Your task to perform on an android device: turn on improve location accuracy Image 0: 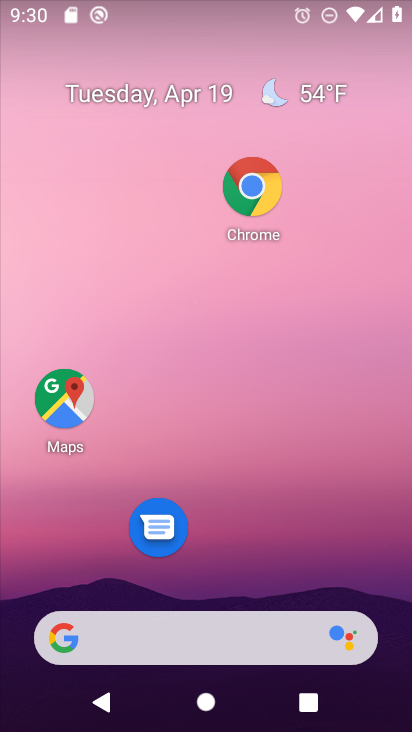
Step 0: drag from (235, 406) to (229, 103)
Your task to perform on an android device: turn on improve location accuracy Image 1: 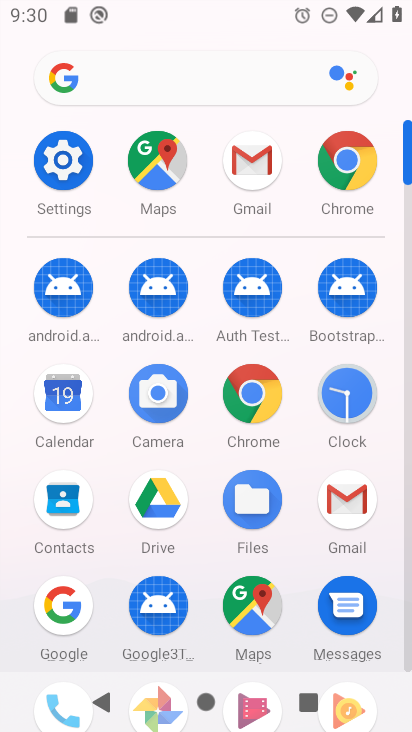
Step 1: drag from (297, 544) to (280, 629)
Your task to perform on an android device: turn on improve location accuracy Image 2: 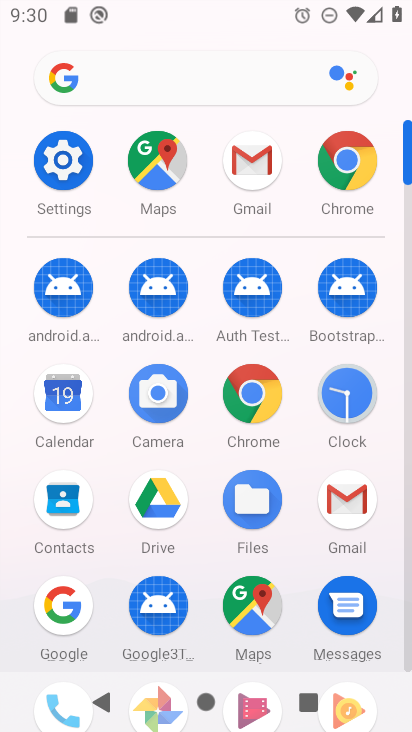
Step 2: click (69, 148)
Your task to perform on an android device: turn on improve location accuracy Image 3: 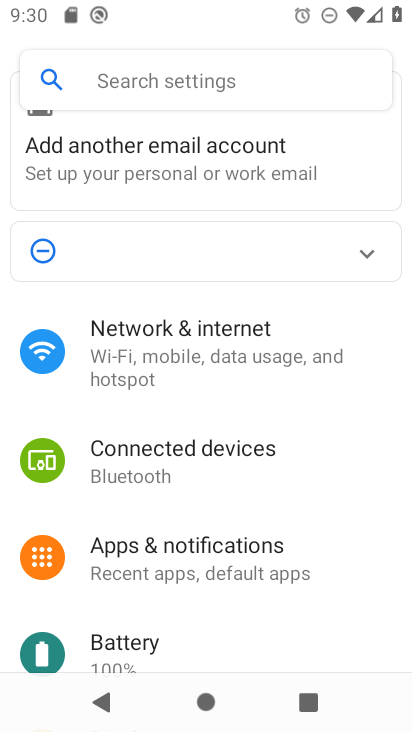
Step 3: drag from (229, 574) to (292, 265)
Your task to perform on an android device: turn on improve location accuracy Image 4: 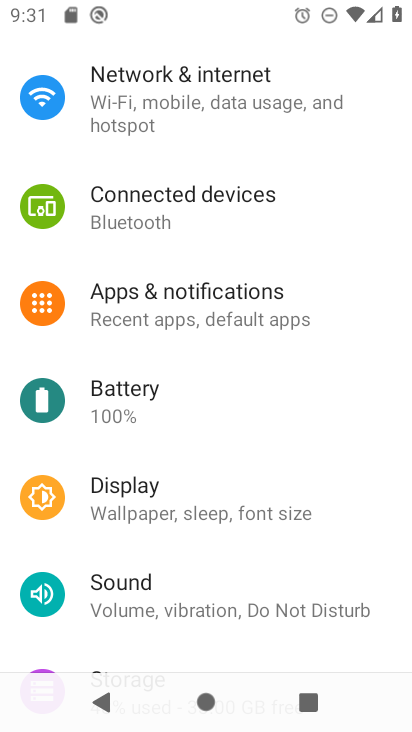
Step 4: drag from (209, 579) to (284, 176)
Your task to perform on an android device: turn on improve location accuracy Image 5: 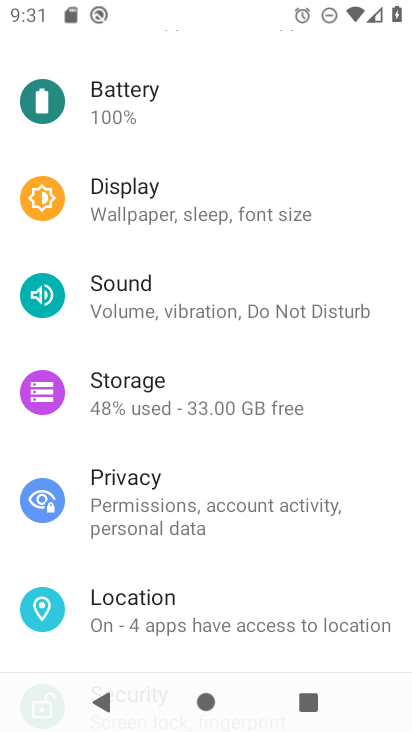
Step 5: drag from (182, 507) to (214, 317)
Your task to perform on an android device: turn on improve location accuracy Image 6: 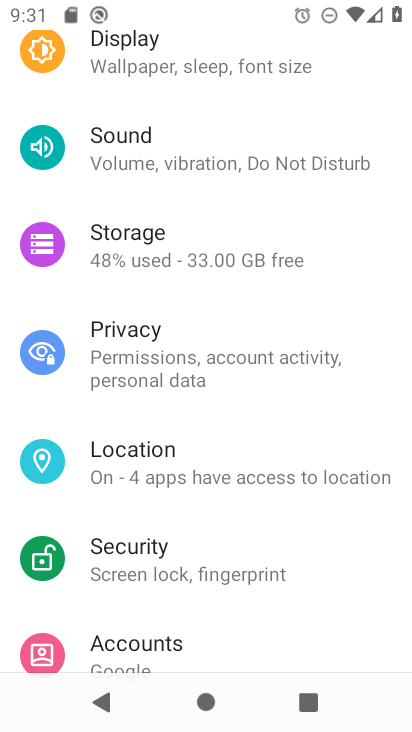
Step 6: click (145, 464)
Your task to perform on an android device: turn on improve location accuracy Image 7: 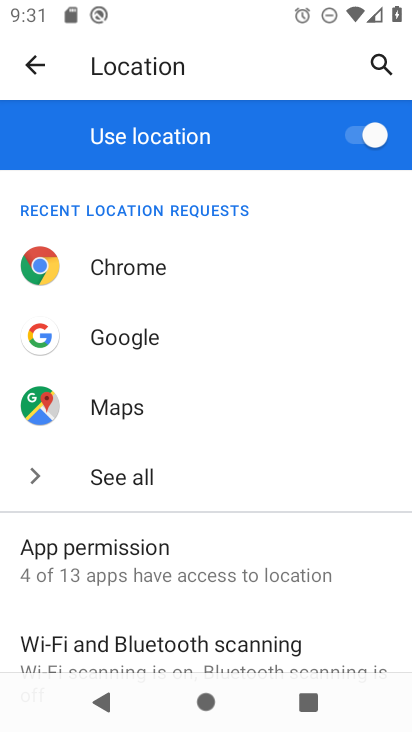
Step 7: drag from (222, 585) to (304, 250)
Your task to perform on an android device: turn on improve location accuracy Image 8: 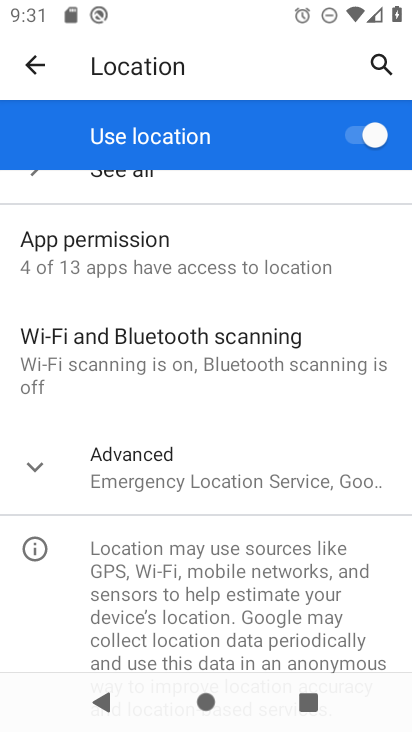
Step 8: click (189, 483)
Your task to perform on an android device: turn on improve location accuracy Image 9: 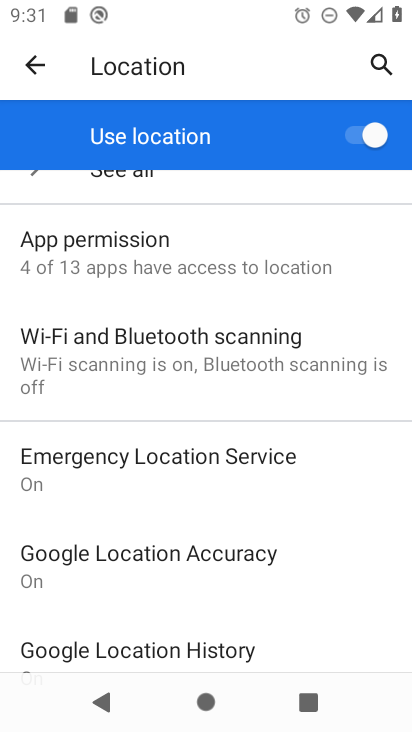
Step 9: drag from (261, 567) to (293, 403)
Your task to perform on an android device: turn on improve location accuracy Image 10: 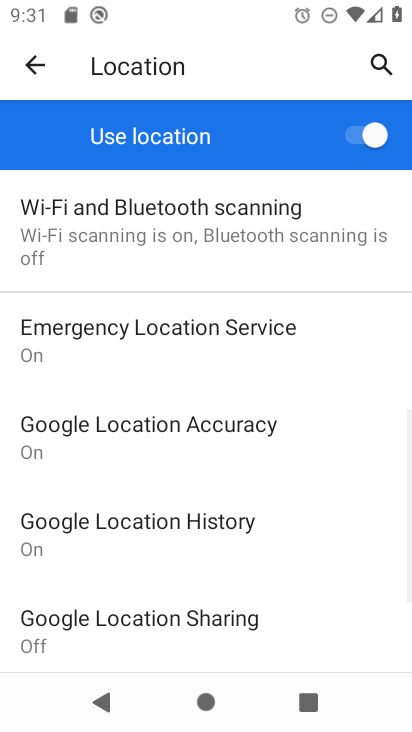
Step 10: click (226, 425)
Your task to perform on an android device: turn on improve location accuracy Image 11: 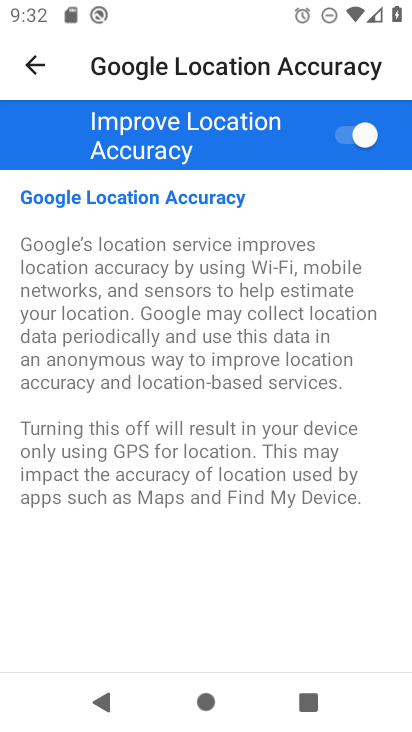
Step 11: task complete